Your task to perform on an android device: Go to Amazon Image 0: 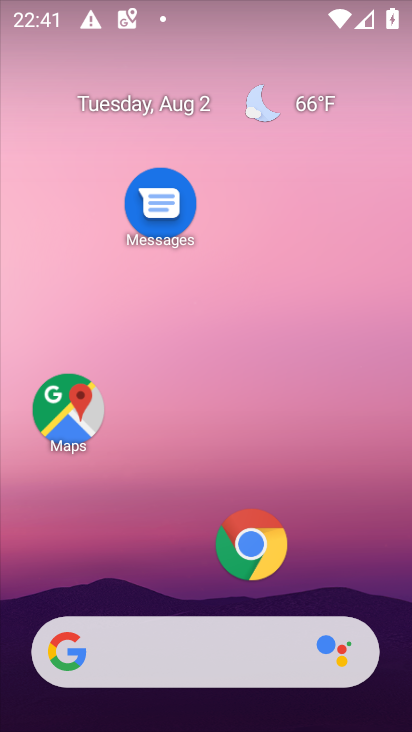
Step 0: click (254, 562)
Your task to perform on an android device: Go to Amazon Image 1: 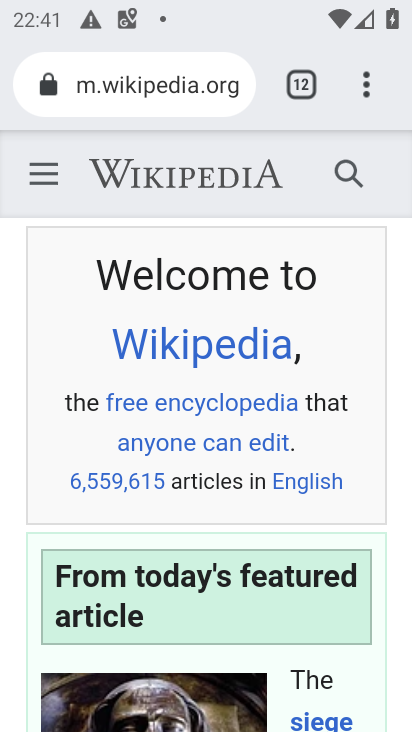
Step 1: click (299, 89)
Your task to perform on an android device: Go to Amazon Image 2: 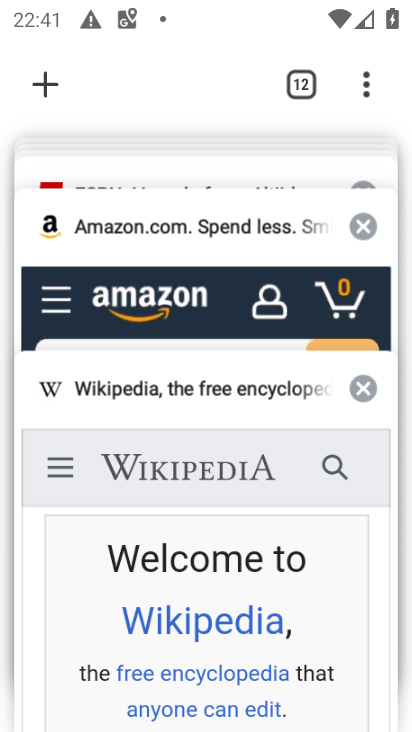
Step 2: task complete